Your task to perform on an android device: toggle wifi Image 0: 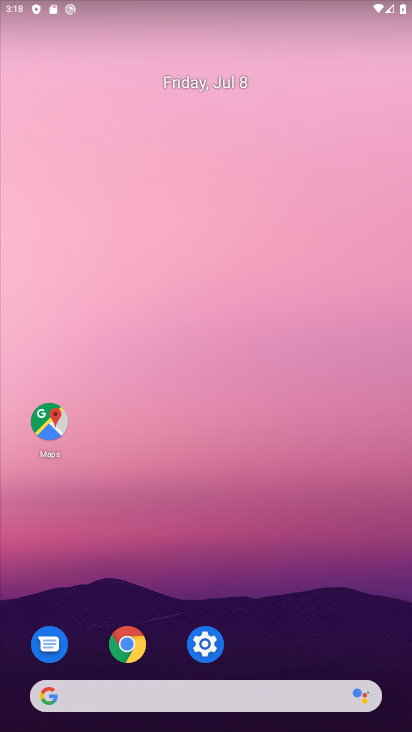
Step 0: drag from (11, 710) to (200, 82)
Your task to perform on an android device: toggle wifi Image 1: 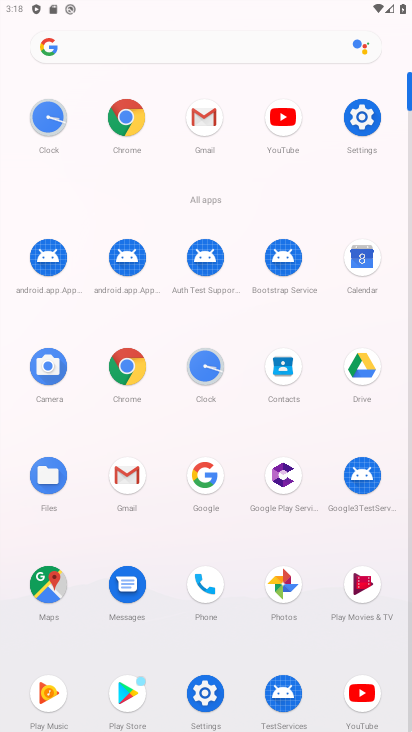
Step 1: click (210, 688)
Your task to perform on an android device: toggle wifi Image 2: 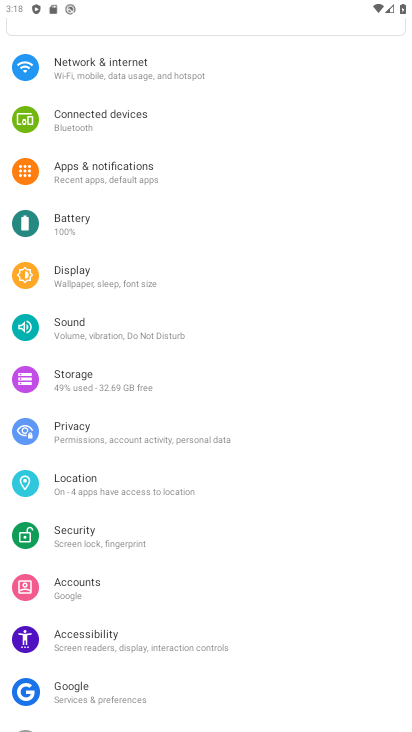
Step 2: click (95, 64)
Your task to perform on an android device: toggle wifi Image 3: 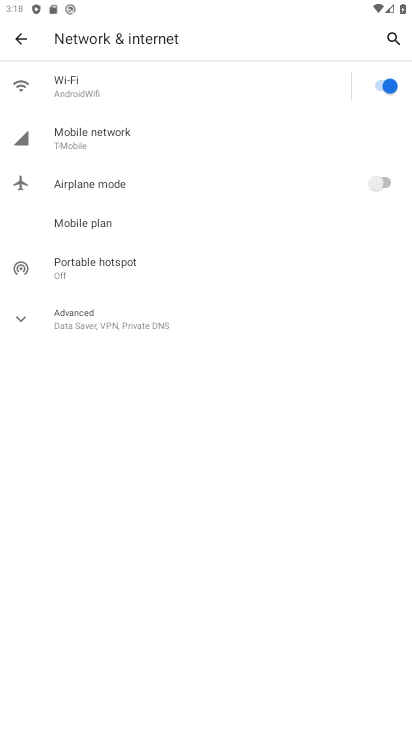
Step 3: click (383, 83)
Your task to perform on an android device: toggle wifi Image 4: 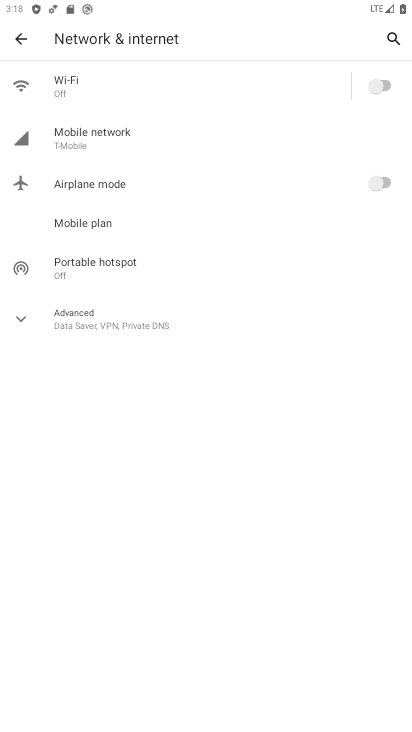
Step 4: task complete